Your task to perform on an android device: Open ESPN.com Image 0: 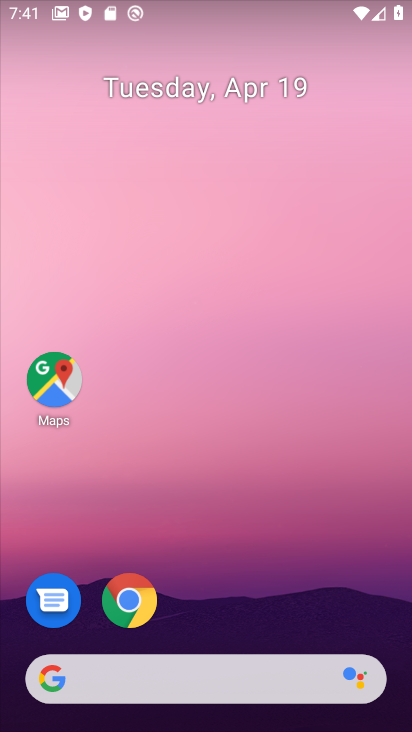
Step 0: drag from (290, 627) to (266, 34)
Your task to perform on an android device: Open ESPN.com Image 1: 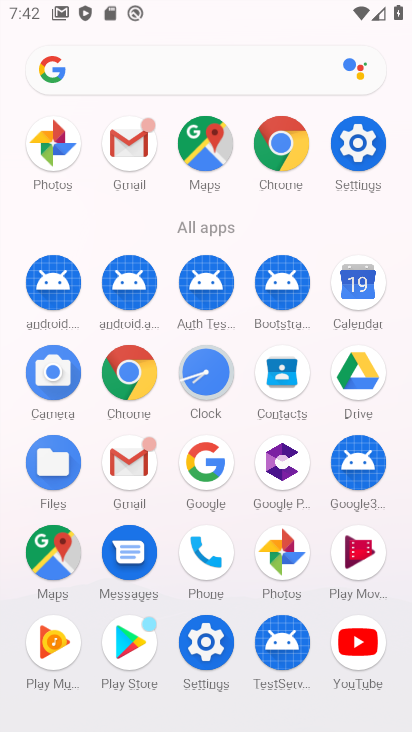
Step 1: click (291, 151)
Your task to perform on an android device: Open ESPN.com Image 2: 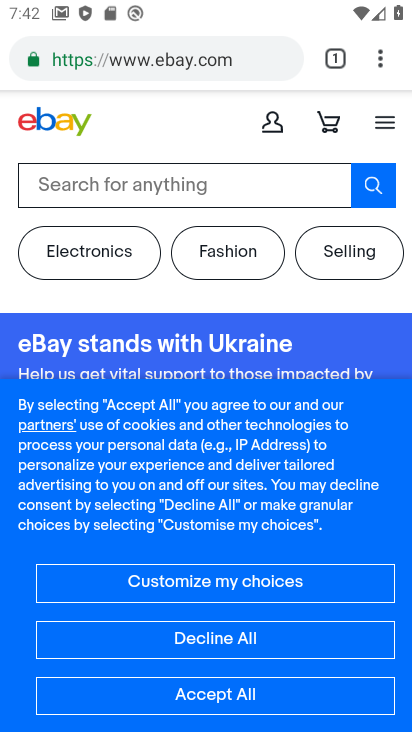
Step 2: press back button
Your task to perform on an android device: Open ESPN.com Image 3: 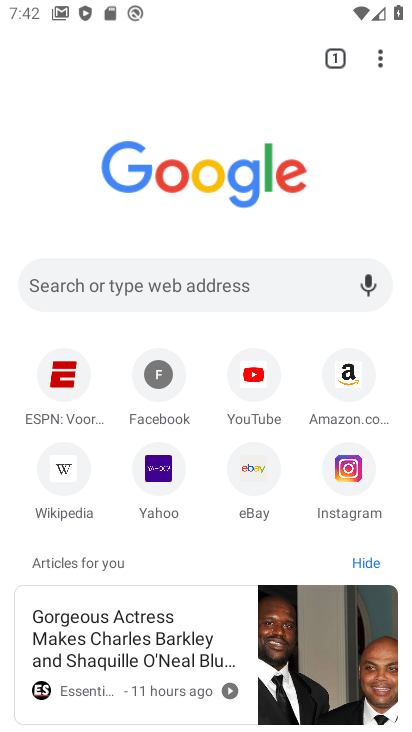
Step 3: click (45, 394)
Your task to perform on an android device: Open ESPN.com Image 4: 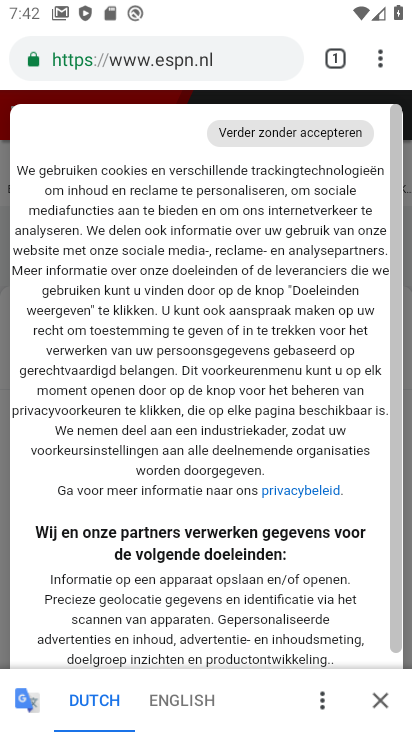
Step 4: task complete